Your task to perform on an android device: turn off picture-in-picture Image 0: 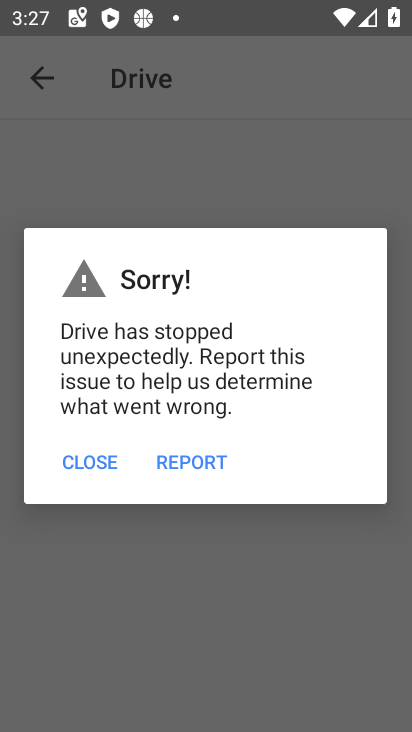
Step 0: press home button
Your task to perform on an android device: turn off picture-in-picture Image 1: 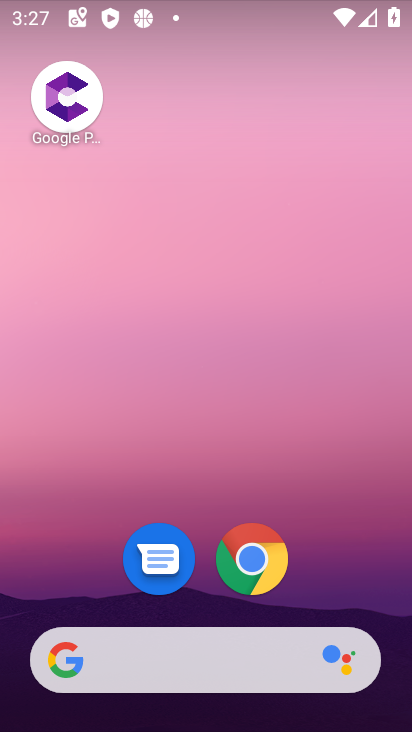
Step 1: drag from (209, 718) to (206, 32)
Your task to perform on an android device: turn off picture-in-picture Image 2: 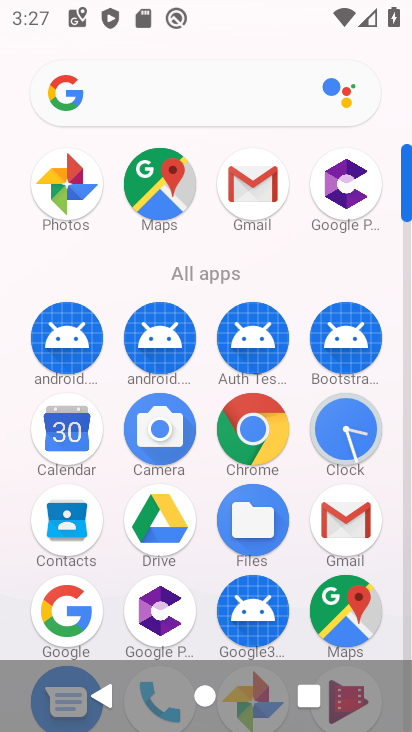
Step 2: drag from (205, 625) to (197, 275)
Your task to perform on an android device: turn off picture-in-picture Image 3: 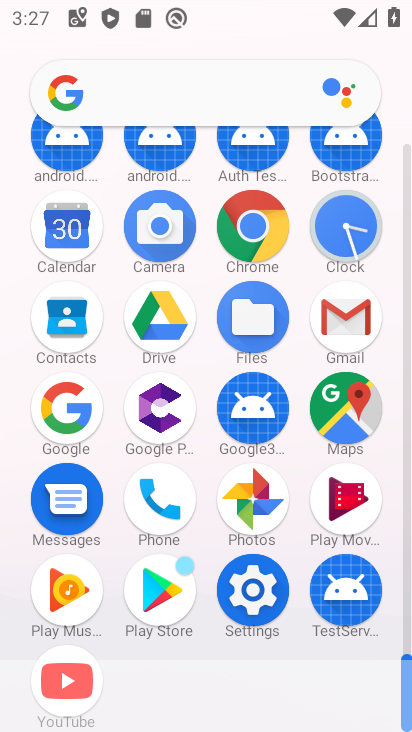
Step 3: click (254, 590)
Your task to perform on an android device: turn off picture-in-picture Image 4: 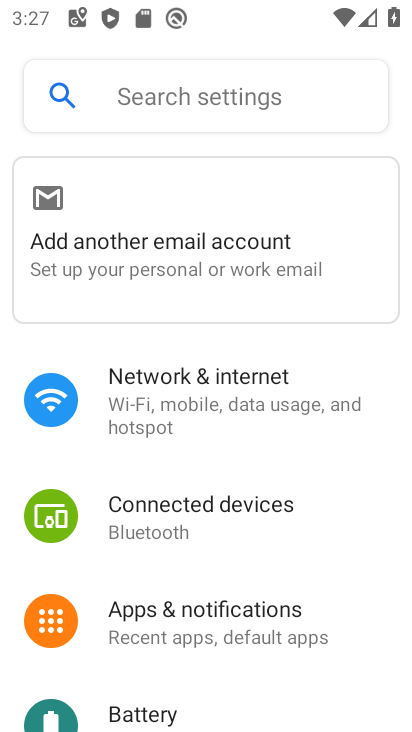
Step 4: click (195, 607)
Your task to perform on an android device: turn off picture-in-picture Image 5: 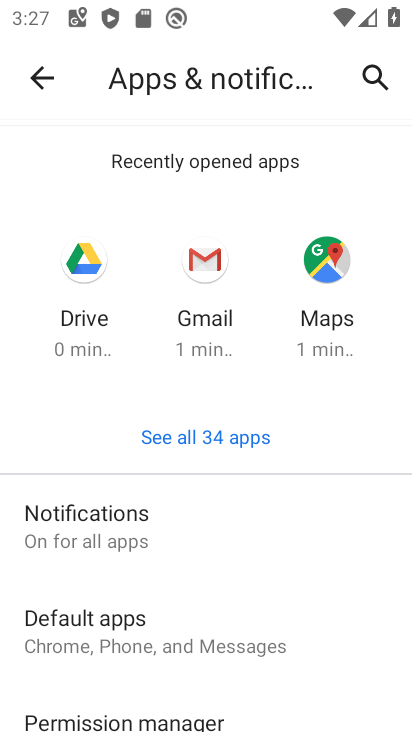
Step 5: drag from (158, 677) to (148, 357)
Your task to perform on an android device: turn off picture-in-picture Image 6: 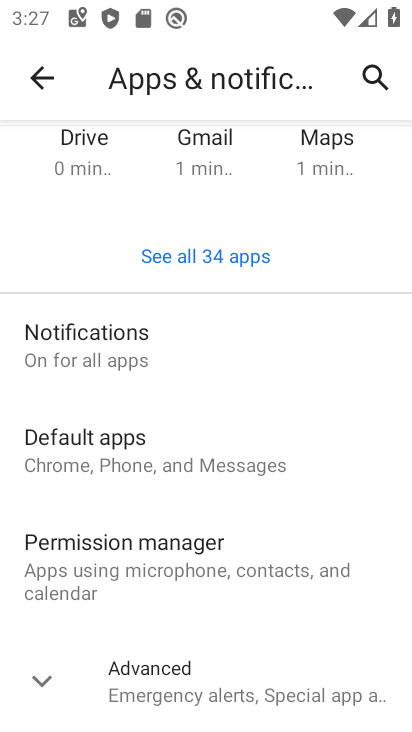
Step 6: click (177, 679)
Your task to perform on an android device: turn off picture-in-picture Image 7: 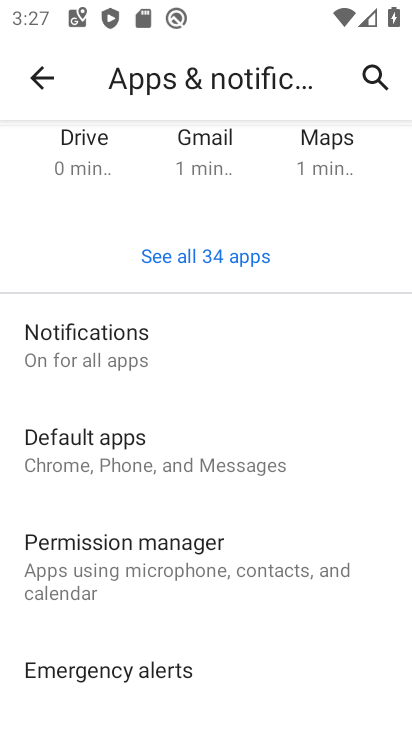
Step 7: drag from (190, 692) to (204, 349)
Your task to perform on an android device: turn off picture-in-picture Image 8: 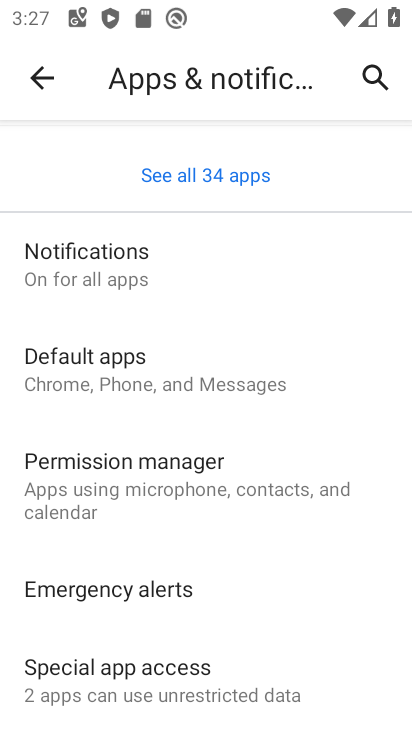
Step 8: click (191, 679)
Your task to perform on an android device: turn off picture-in-picture Image 9: 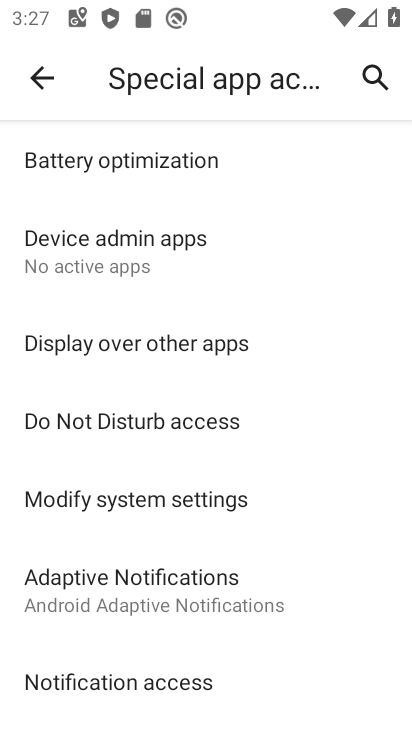
Step 9: drag from (208, 654) to (201, 213)
Your task to perform on an android device: turn off picture-in-picture Image 10: 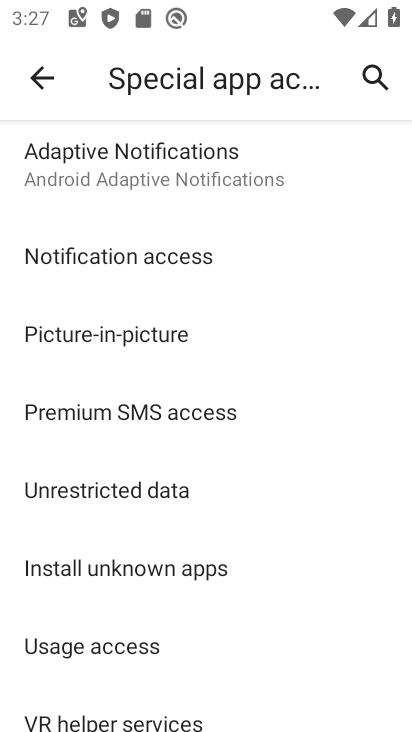
Step 10: click (96, 326)
Your task to perform on an android device: turn off picture-in-picture Image 11: 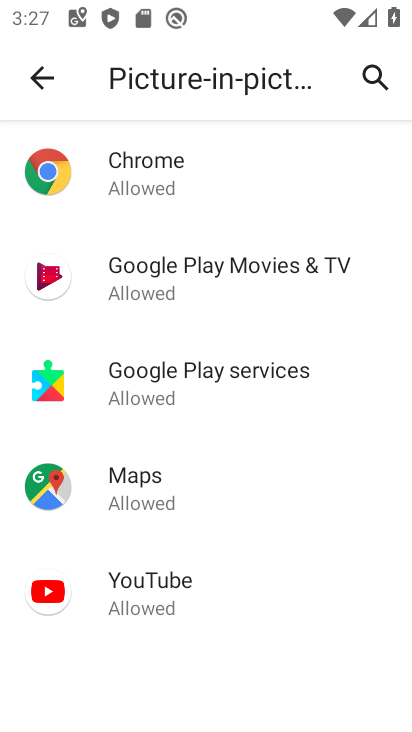
Step 11: click (131, 599)
Your task to perform on an android device: turn off picture-in-picture Image 12: 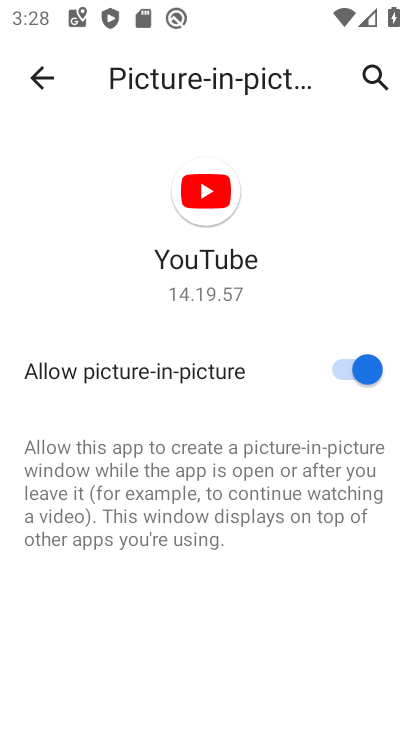
Step 12: click (340, 355)
Your task to perform on an android device: turn off picture-in-picture Image 13: 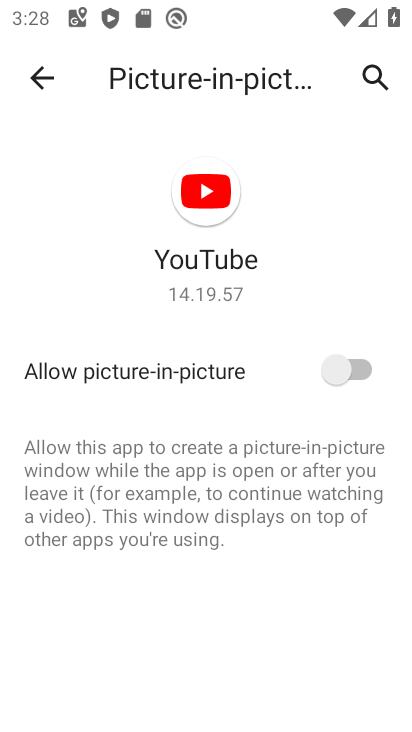
Step 13: task complete